Your task to perform on an android device: check battery use Image 0: 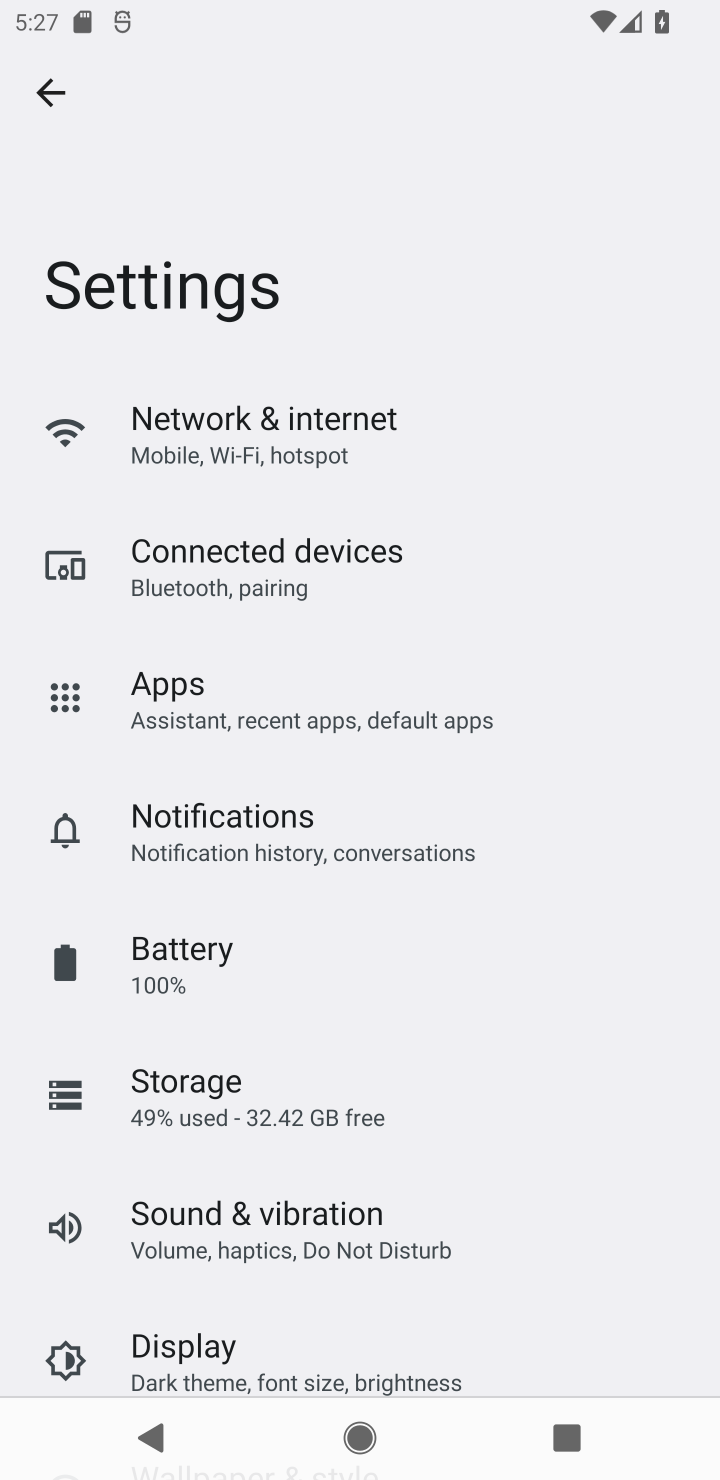
Step 0: click (353, 951)
Your task to perform on an android device: check battery use Image 1: 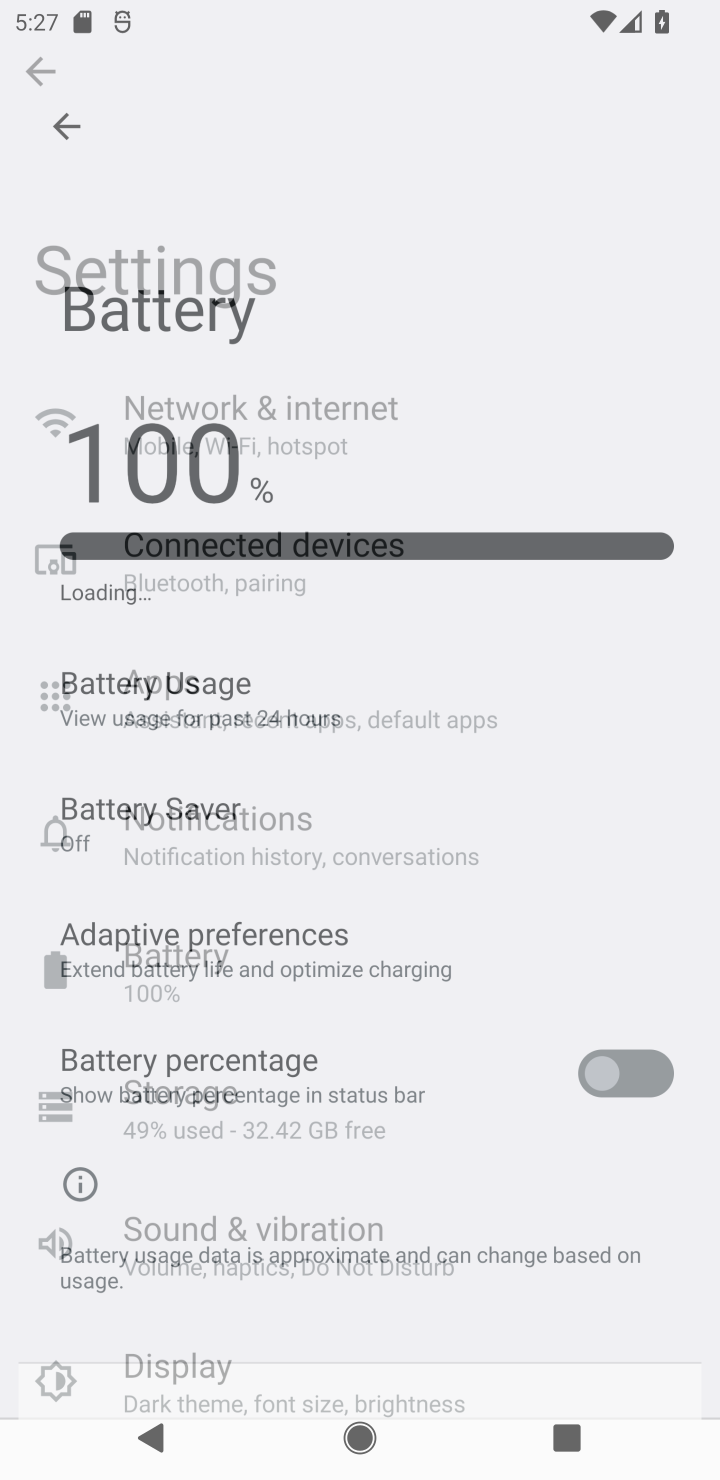
Step 1: task complete